Your task to perform on an android device: Open Chrome and go to settings Image 0: 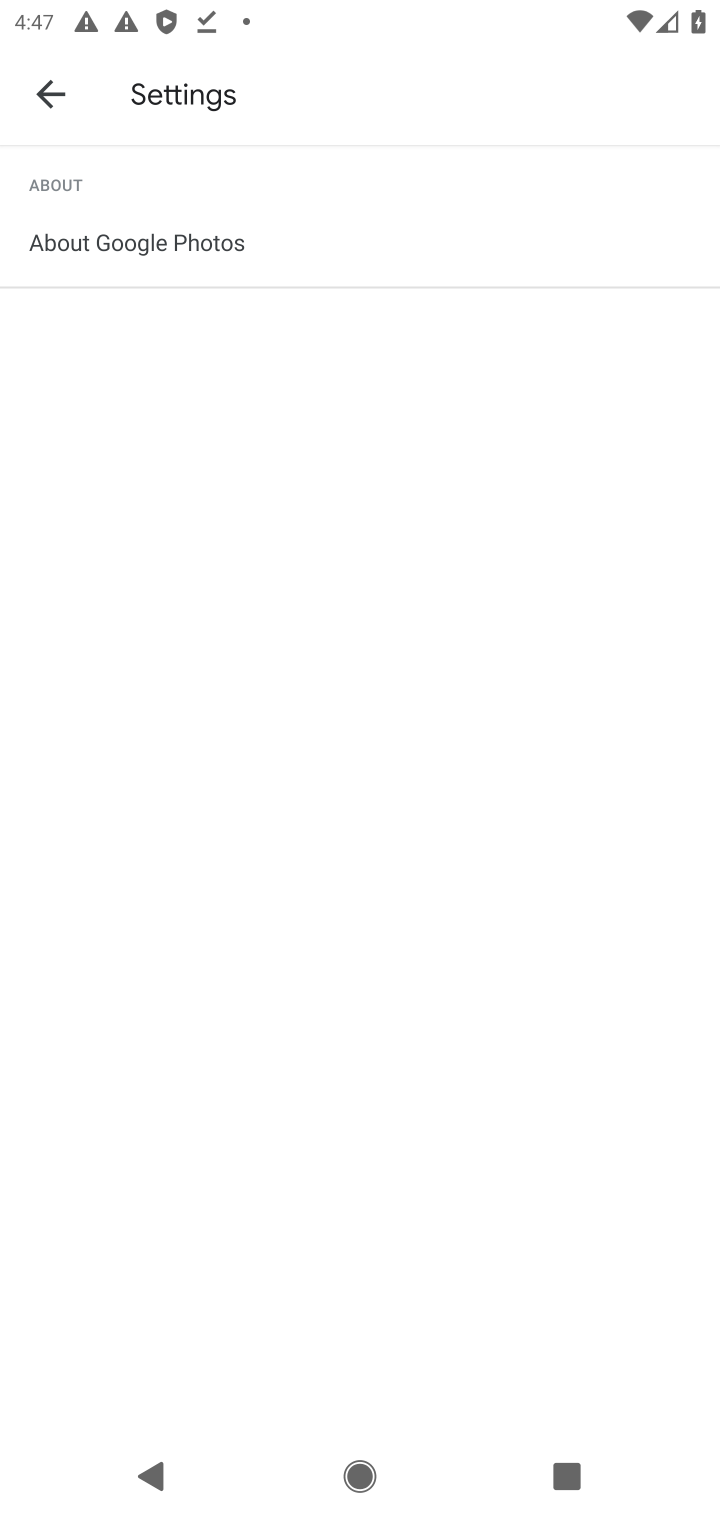
Step 0: task complete